Your task to perform on an android device: Turn on the flashlight Image 0: 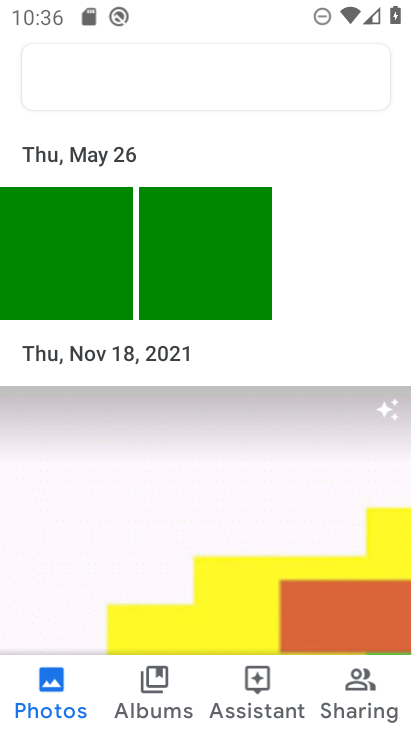
Step 0: drag from (193, 632) to (216, 99)
Your task to perform on an android device: Turn on the flashlight Image 1: 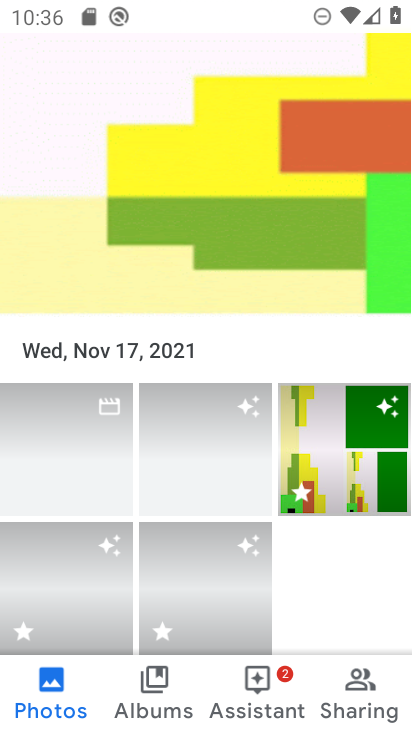
Step 1: press home button
Your task to perform on an android device: Turn on the flashlight Image 2: 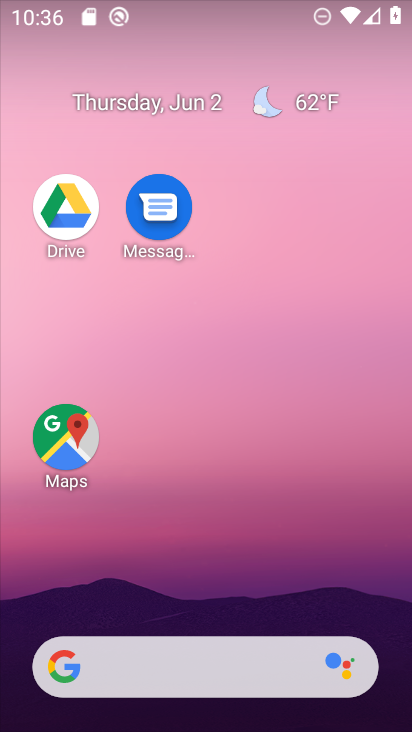
Step 2: drag from (208, 624) to (164, 71)
Your task to perform on an android device: Turn on the flashlight Image 3: 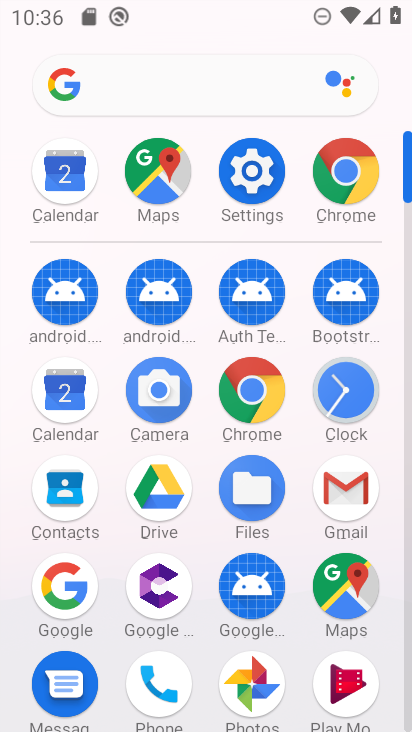
Step 3: click (240, 166)
Your task to perform on an android device: Turn on the flashlight Image 4: 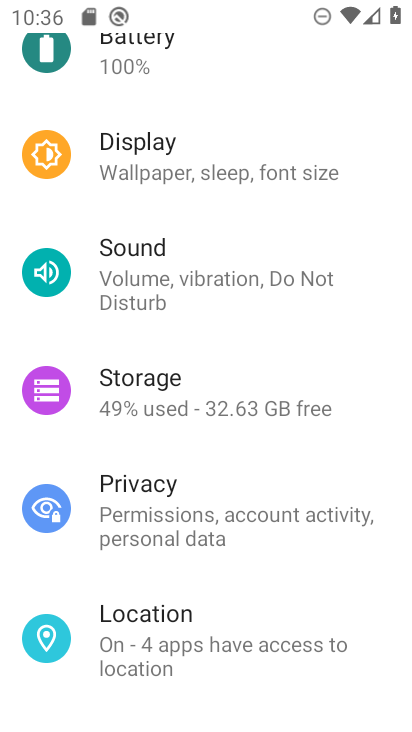
Step 4: task complete